Your task to perform on an android device: turn off location Image 0: 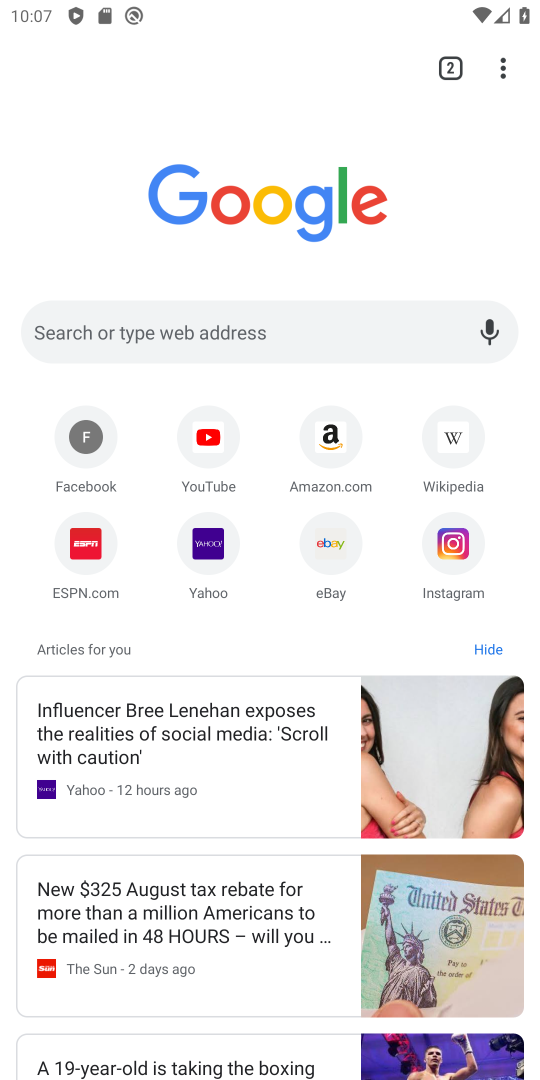
Step 0: press home button
Your task to perform on an android device: turn off location Image 1: 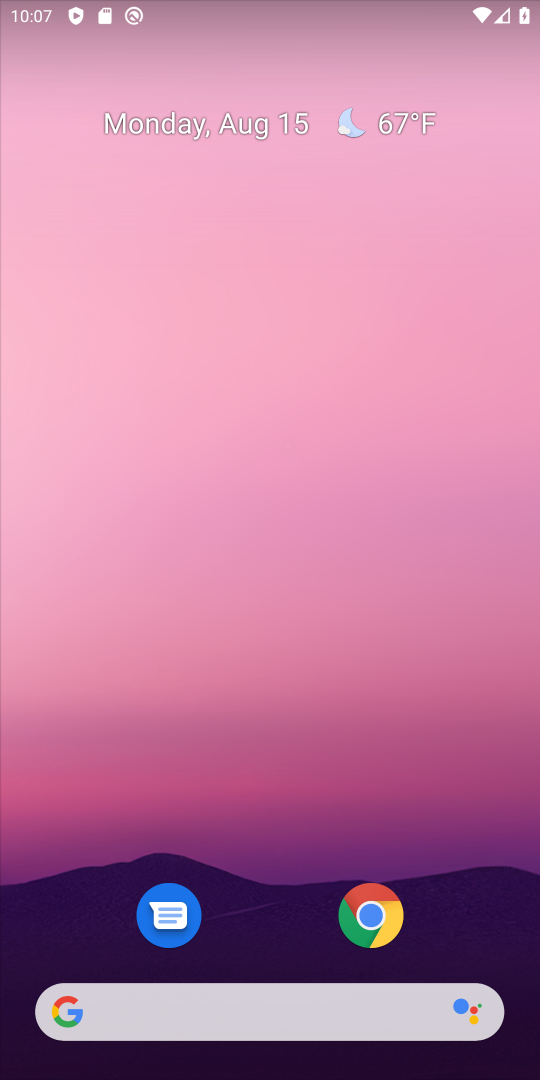
Step 1: drag from (458, 919) to (461, 289)
Your task to perform on an android device: turn off location Image 2: 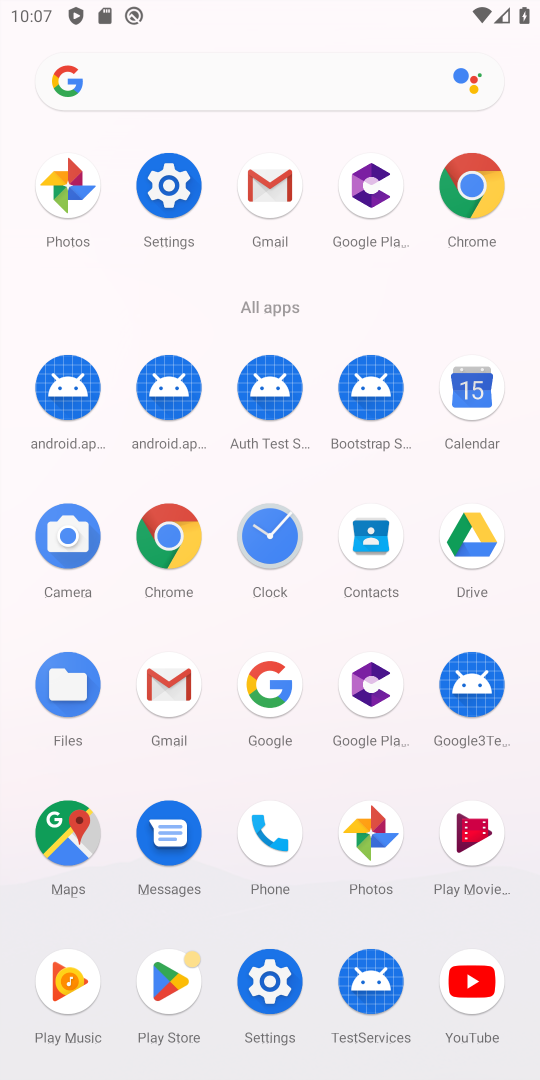
Step 2: click (280, 967)
Your task to perform on an android device: turn off location Image 3: 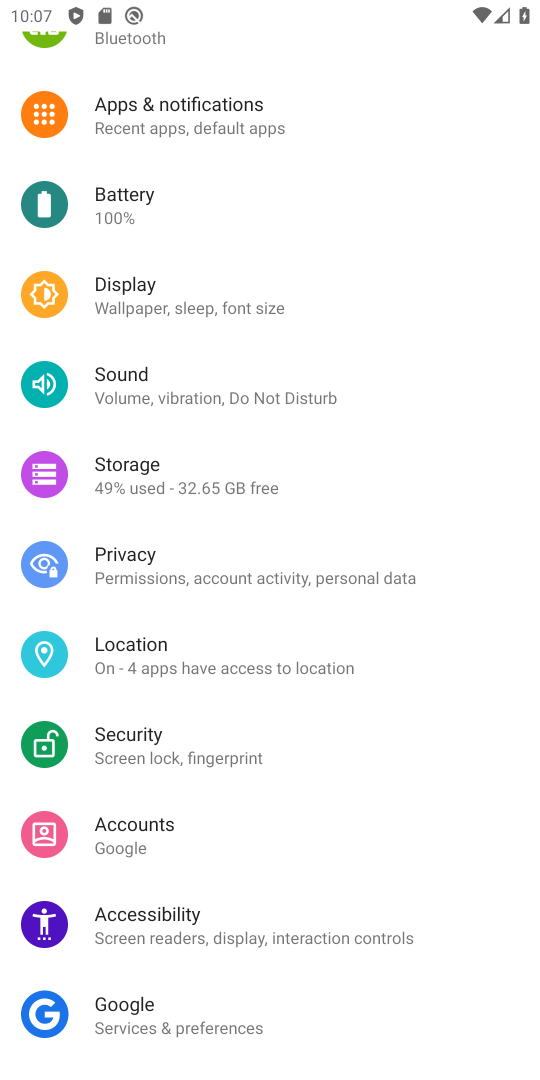
Step 3: click (221, 667)
Your task to perform on an android device: turn off location Image 4: 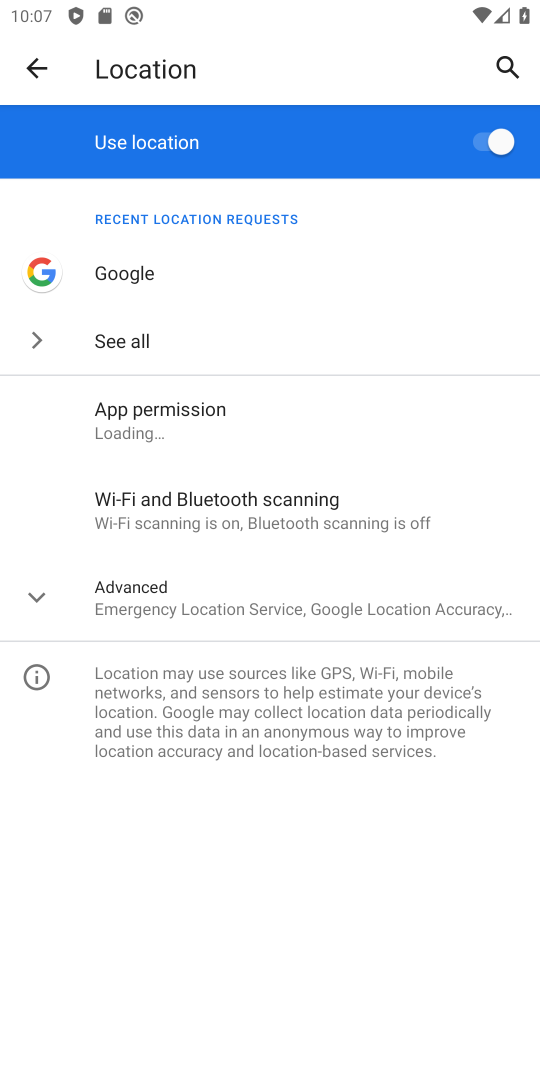
Step 4: click (490, 141)
Your task to perform on an android device: turn off location Image 5: 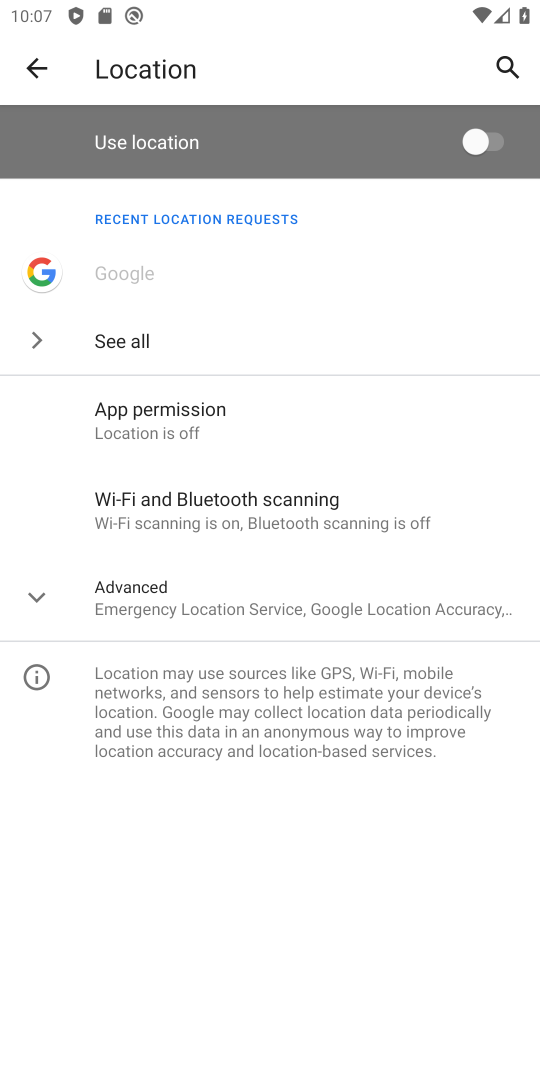
Step 5: task complete